Your task to perform on an android device: Go to settings Image 0: 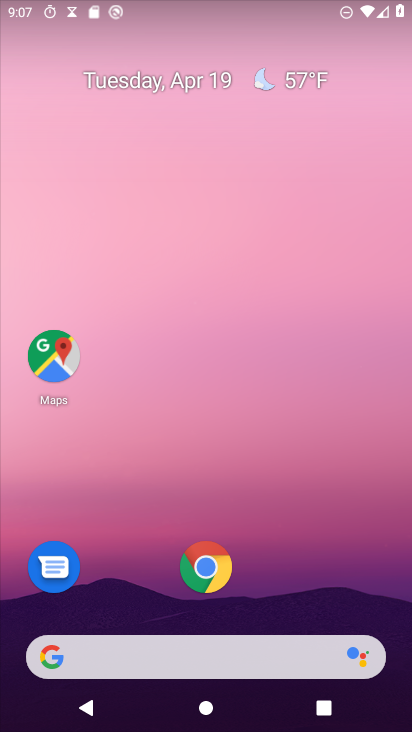
Step 0: drag from (379, 537) to (13, 310)
Your task to perform on an android device: Go to settings Image 1: 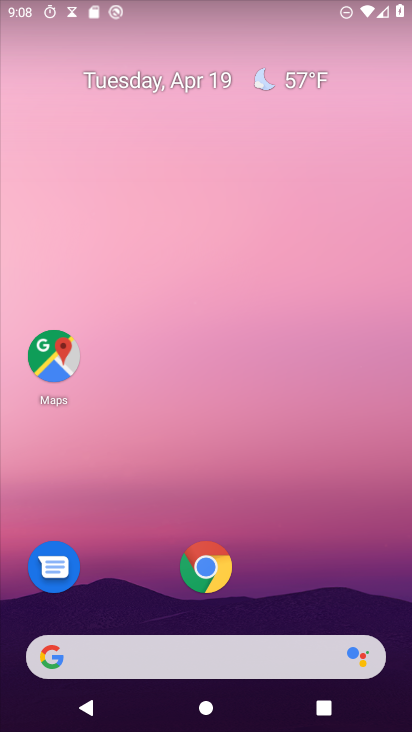
Step 1: drag from (279, 564) to (311, 53)
Your task to perform on an android device: Go to settings Image 2: 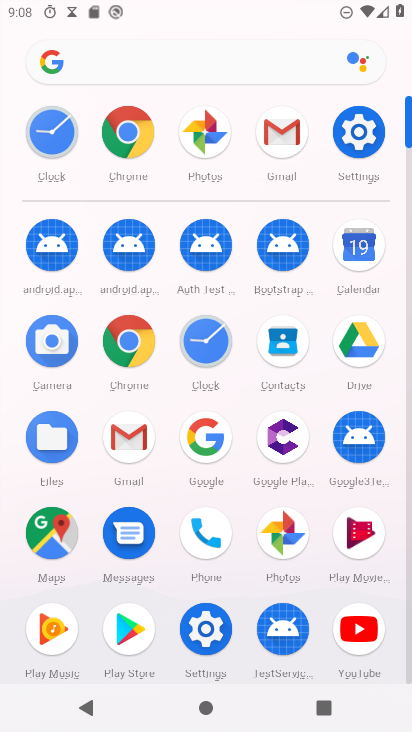
Step 2: click (345, 139)
Your task to perform on an android device: Go to settings Image 3: 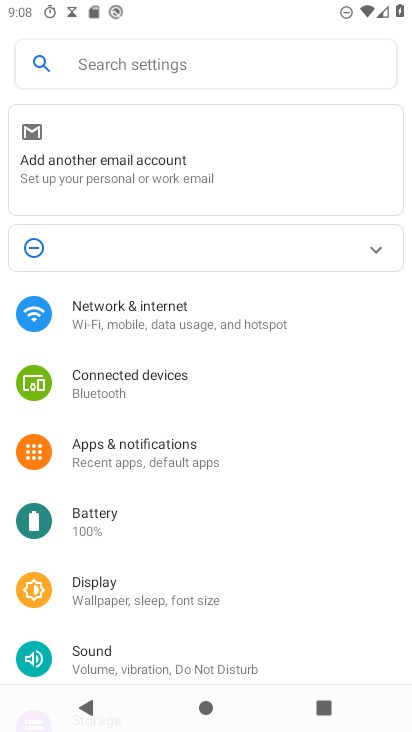
Step 3: task complete